Your task to perform on an android device: turn on showing notifications on the lock screen Image 0: 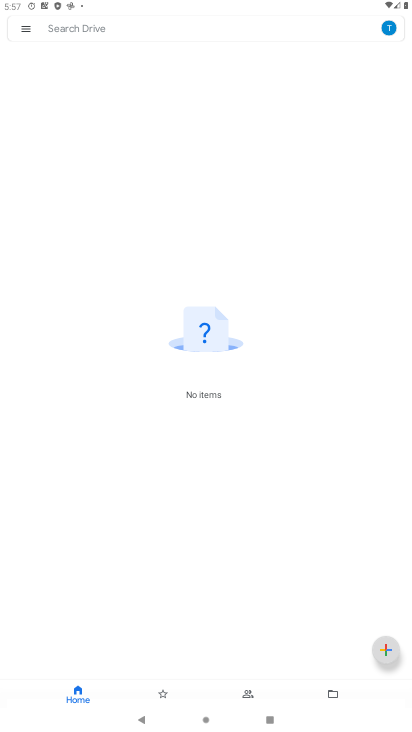
Step 0: press home button
Your task to perform on an android device: turn on showing notifications on the lock screen Image 1: 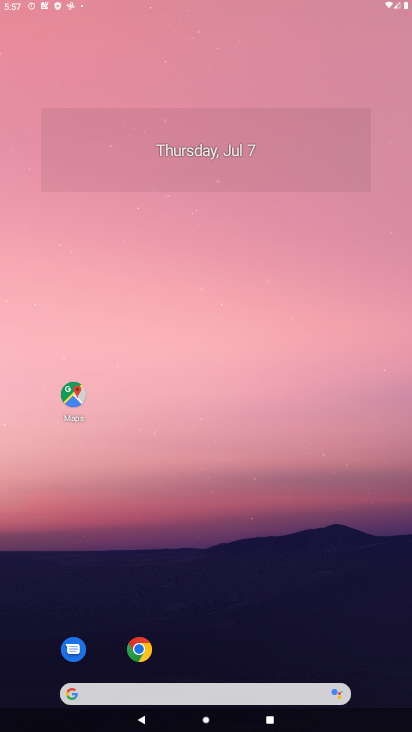
Step 1: drag from (381, 661) to (164, 0)
Your task to perform on an android device: turn on showing notifications on the lock screen Image 2: 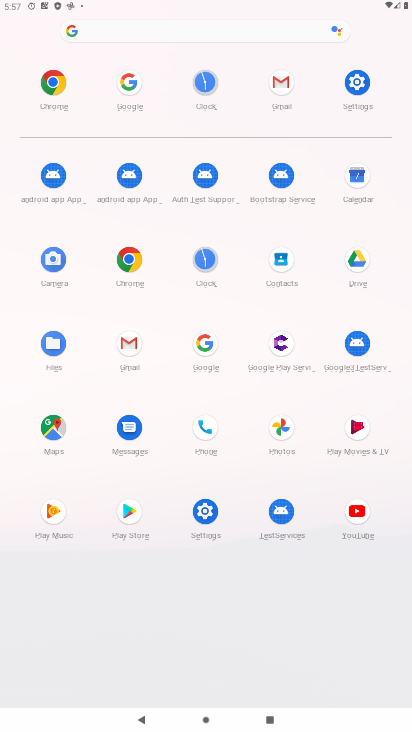
Step 2: click (359, 82)
Your task to perform on an android device: turn on showing notifications on the lock screen Image 3: 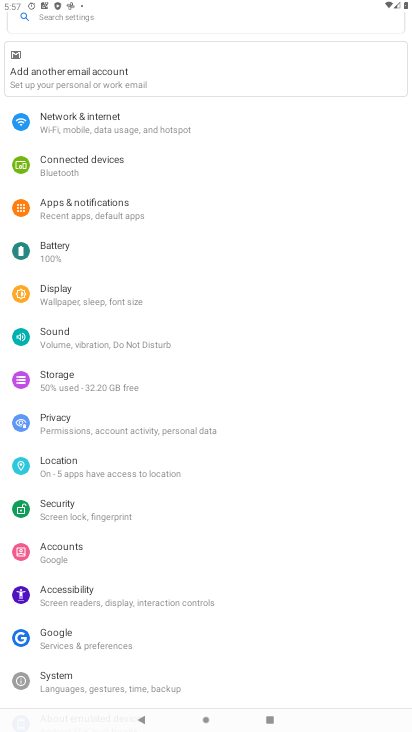
Step 3: click (116, 210)
Your task to perform on an android device: turn on showing notifications on the lock screen Image 4: 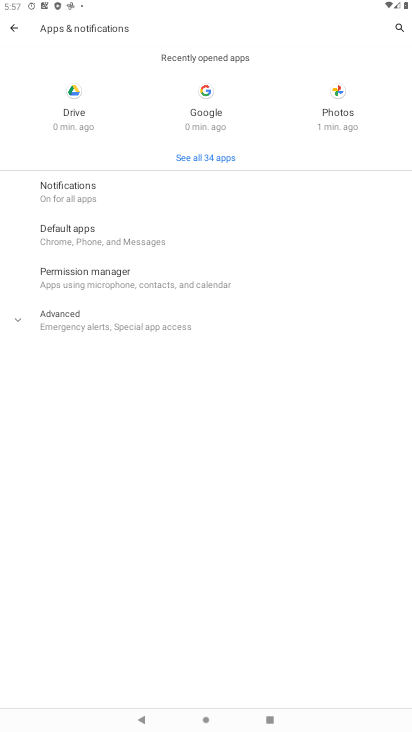
Step 4: click (79, 199)
Your task to perform on an android device: turn on showing notifications on the lock screen Image 5: 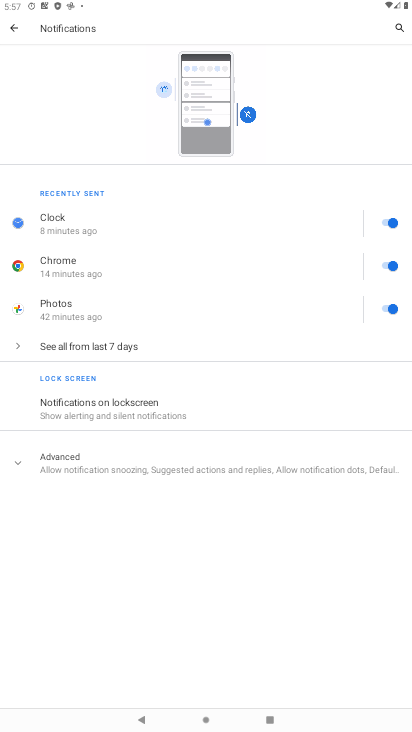
Step 5: drag from (44, 233) to (58, 407)
Your task to perform on an android device: turn on showing notifications on the lock screen Image 6: 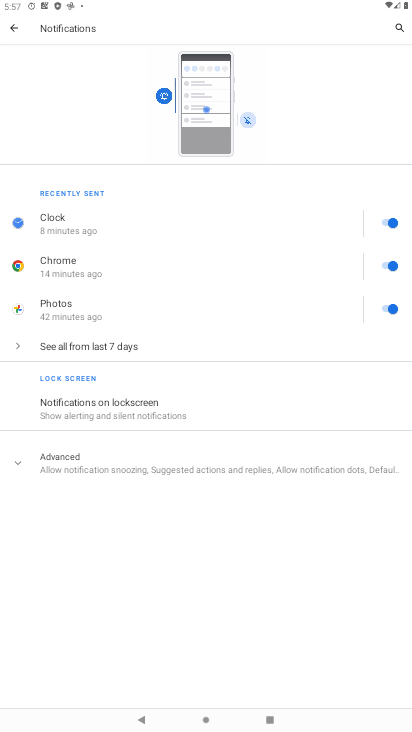
Step 6: click (136, 413)
Your task to perform on an android device: turn on showing notifications on the lock screen Image 7: 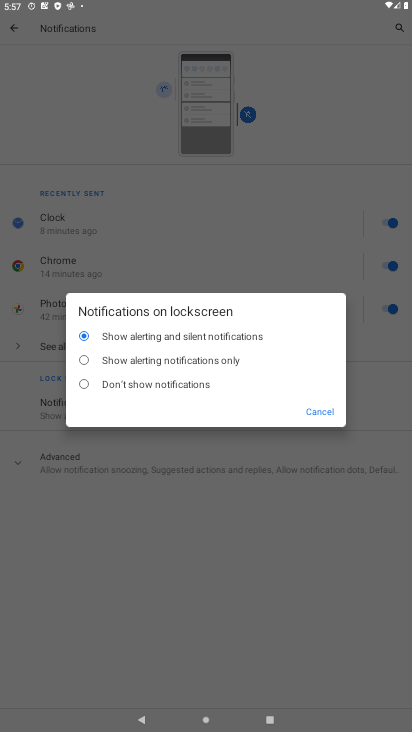
Step 7: task complete